Your task to perform on an android device: Search for 35 best books of all time Image 0: 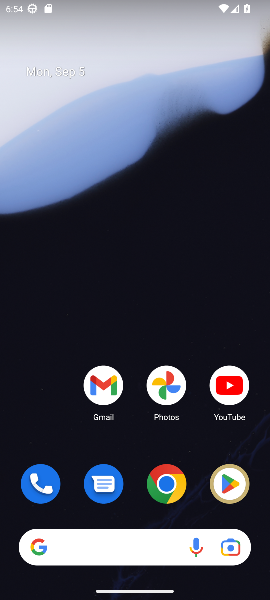
Step 0: drag from (236, 186) to (262, 126)
Your task to perform on an android device: Search for 35 best books of all time Image 1: 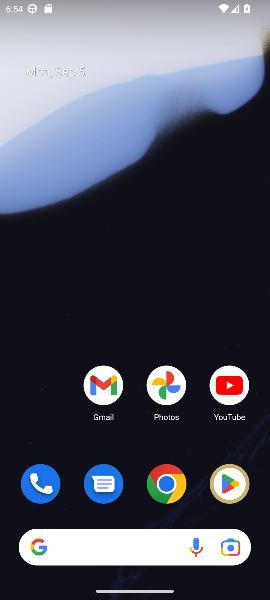
Step 1: drag from (203, 166) to (218, 120)
Your task to perform on an android device: Search for 35 best books of all time Image 2: 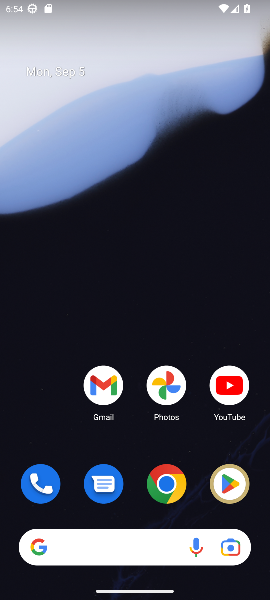
Step 2: drag from (194, 103) to (216, 21)
Your task to perform on an android device: Search for 35 best books of all time Image 3: 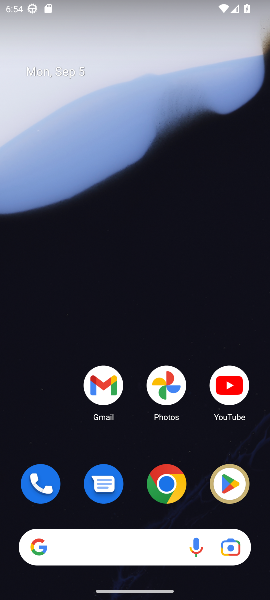
Step 3: drag from (235, 58) to (248, 1)
Your task to perform on an android device: Search for 35 best books of all time Image 4: 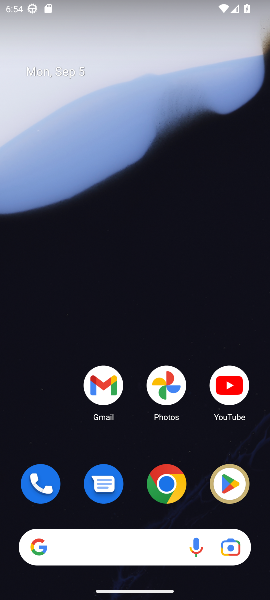
Step 4: click (166, 489)
Your task to perform on an android device: Search for 35 best books of all time Image 5: 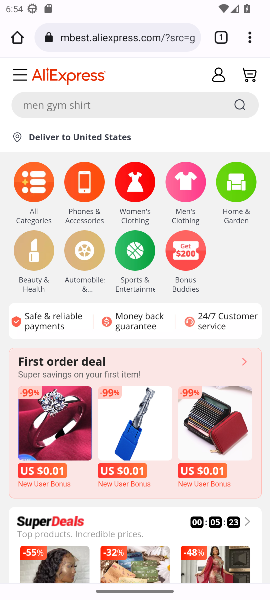
Step 5: click (135, 34)
Your task to perform on an android device: Search for 35 best books of all time Image 6: 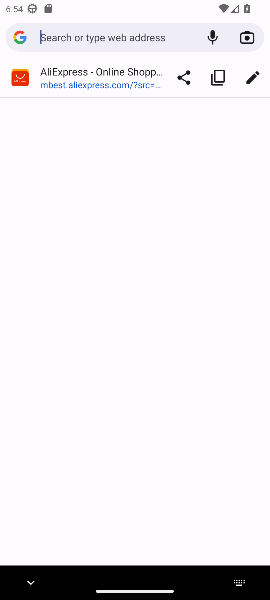
Step 6: type "35 best books of all time"
Your task to perform on an android device: Search for 35 best books of all time Image 7: 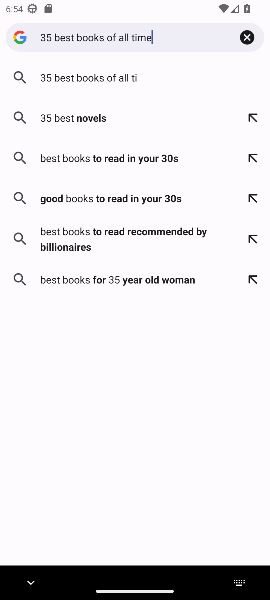
Step 7: press enter
Your task to perform on an android device: Search for 35 best books of all time Image 8: 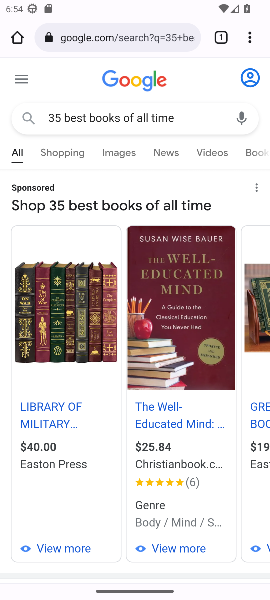
Step 8: task complete